Your task to perform on an android device: Toggle the flashlight Image 0: 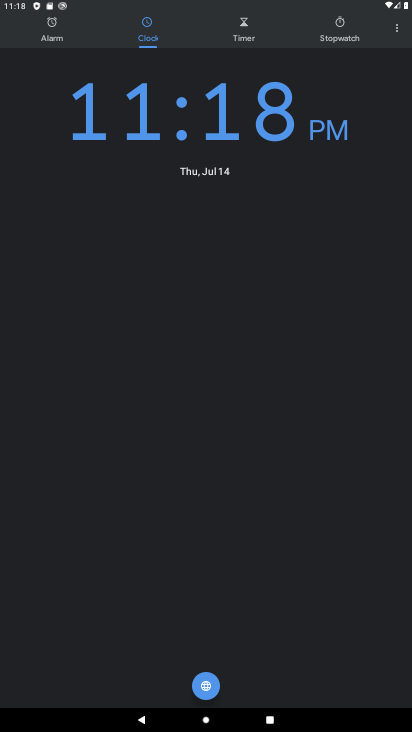
Step 0: press home button
Your task to perform on an android device: Toggle the flashlight Image 1: 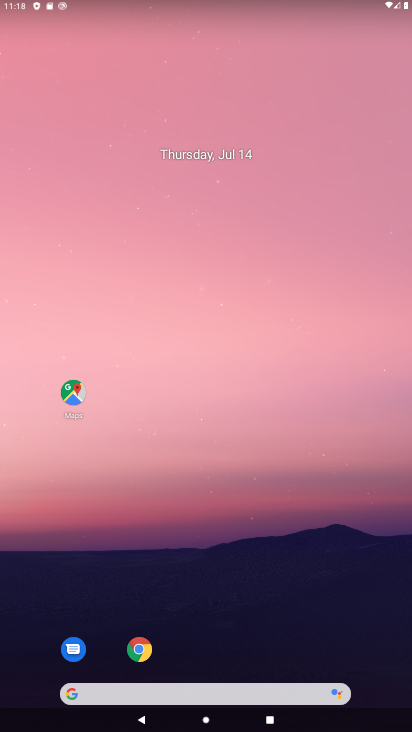
Step 1: drag from (194, 651) to (254, 41)
Your task to perform on an android device: Toggle the flashlight Image 2: 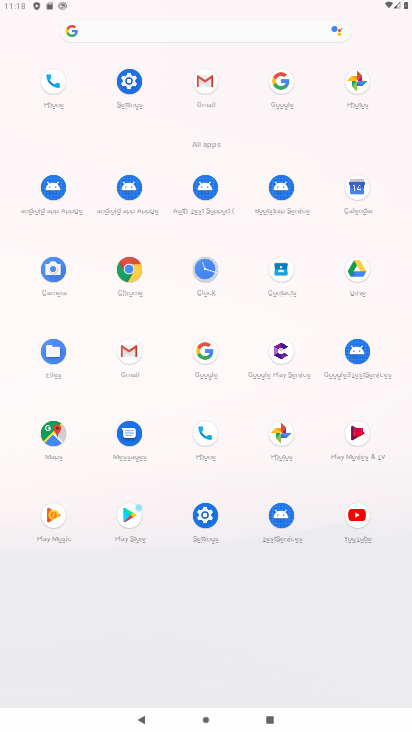
Step 2: click (122, 86)
Your task to perform on an android device: Toggle the flashlight Image 3: 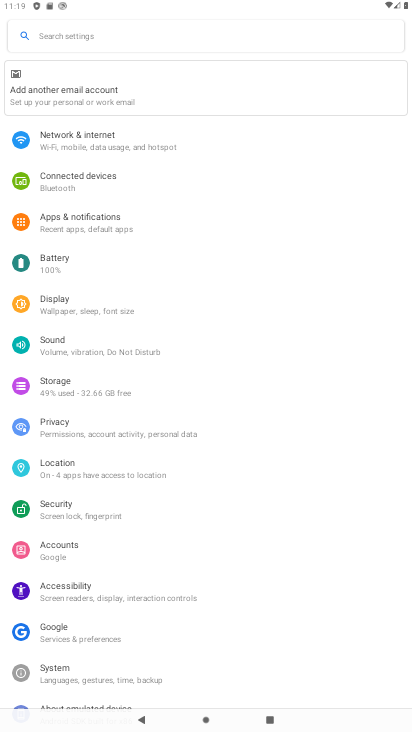
Step 3: task complete